Your task to perform on an android device: Go to Android settings Image 0: 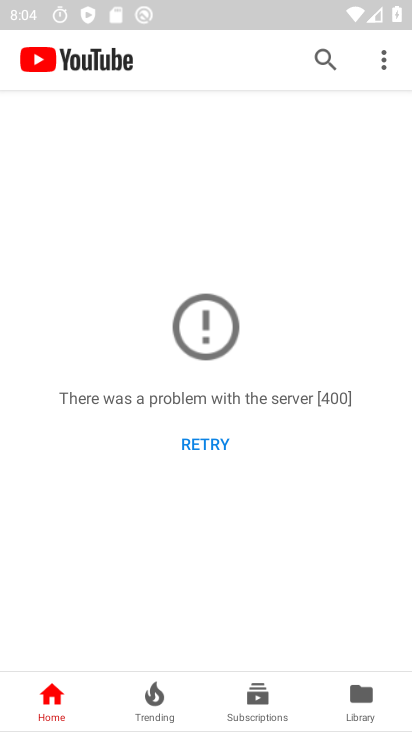
Step 0: press home button
Your task to perform on an android device: Go to Android settings Image 1: 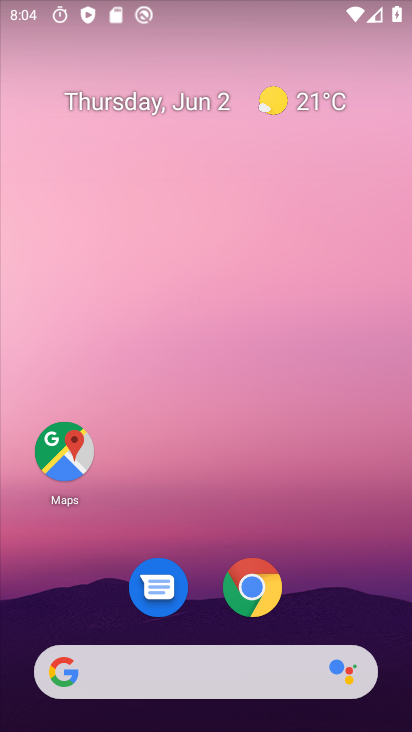
Step 1: drag from (322, 630) to (281, 5)
Your task to perform on an android device: Go to Android settings Image 2: 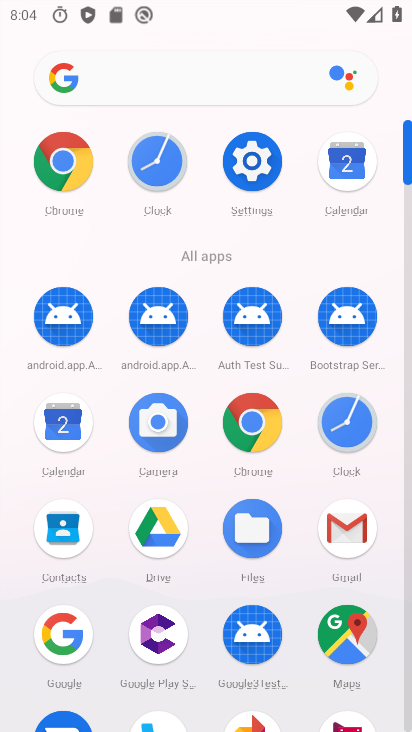
Step 2: click (249, 164)
Your task to perform on an android device: Go to Android settings Image 3: 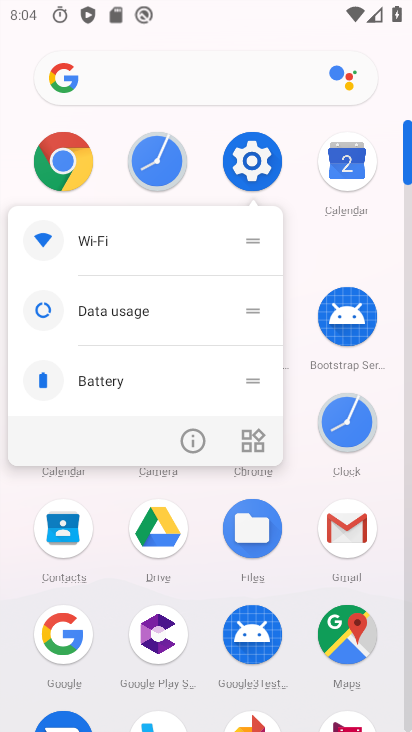
Step 3: click (249, 164)
Your task to perform on an android device: Go to Android settings Image 4: 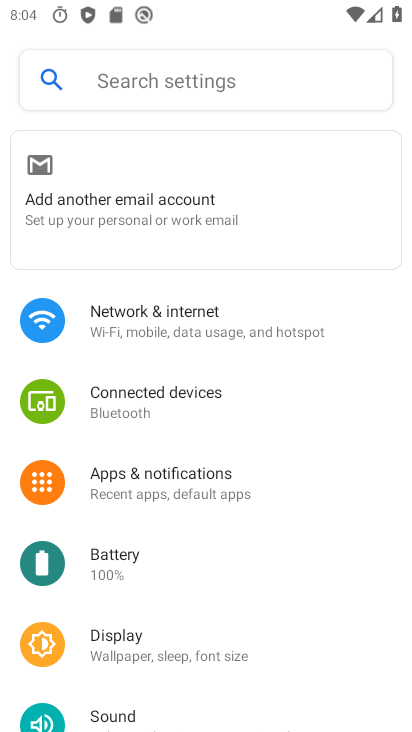
Step 4: task complete